Your task to perform on an android device: turn notification dots on Image 0: 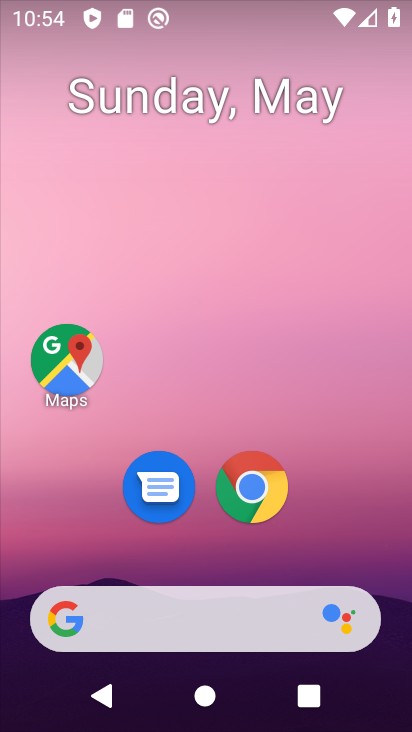
Step 0: drag from (233, 554) to (40, 8)
Your task to perform on an android device: turn notification dots on Image 1: 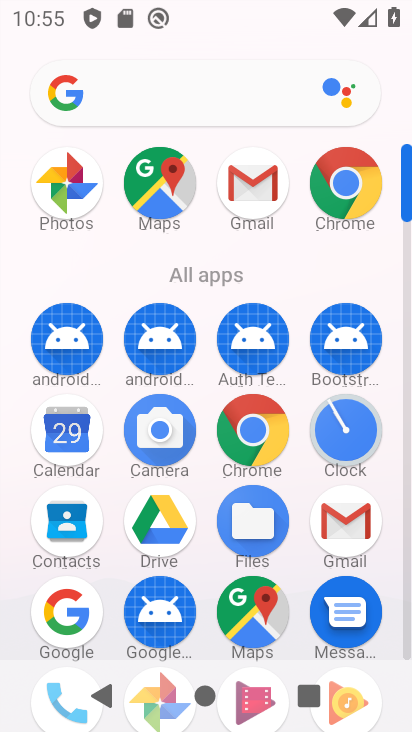
Step 1: drag from (295, 558) to (255, 136)
Your task to perform on an android device: turn notification dots on Image 2: 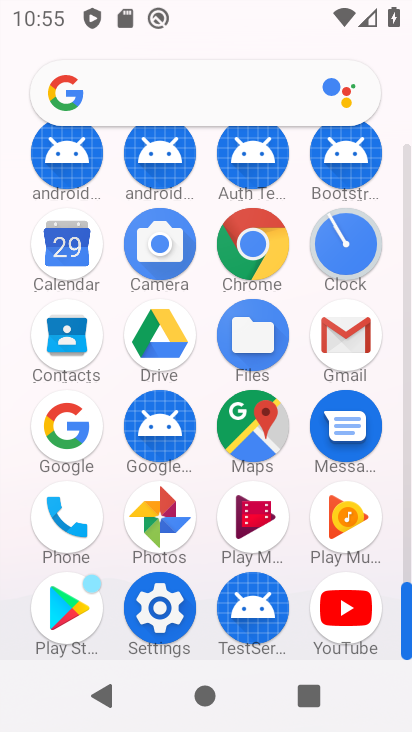
Step 2: click (150, 599)
Your task to perform on an android device: turn notification dots on Image 3: 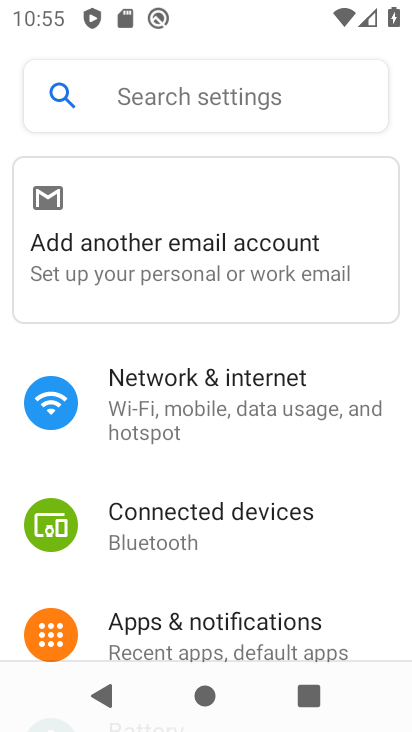
Step 3: click (214, 631)
Your task to perform on an android device: turn notification dots on Image 4: 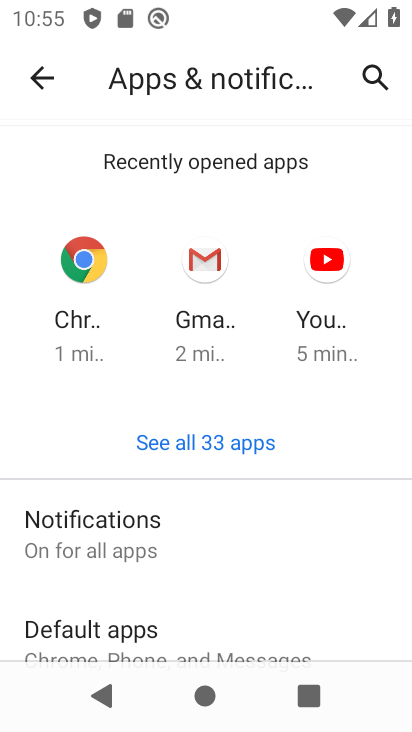
Step 4: click (111, 549)
Your task to perform on an android device: turn notification dots on Image 5: 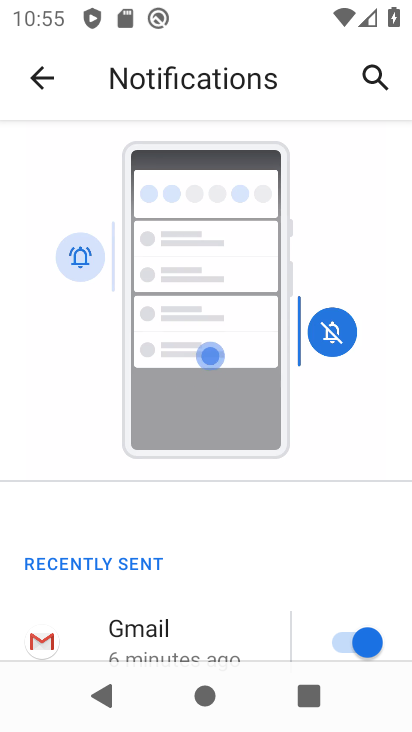
Step 5: drag from (196, 616) to (155, 117)
Your task to perform on an android device: turn notification dots on Image 6: 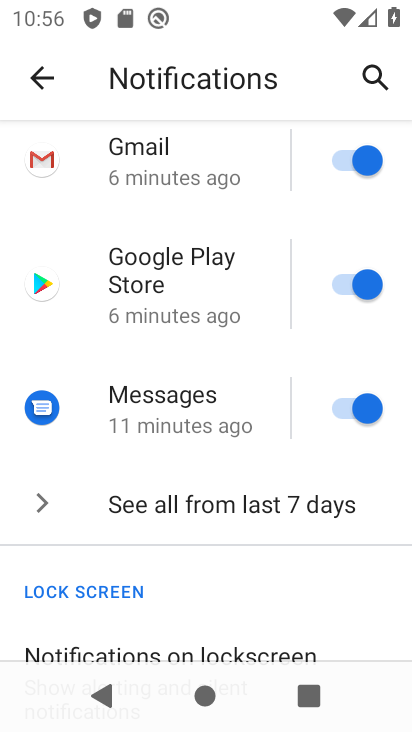
Step 6: drag from (234, 595) to (188, 13)
Your task to perform on an android device: turn notification dots on Image 7: 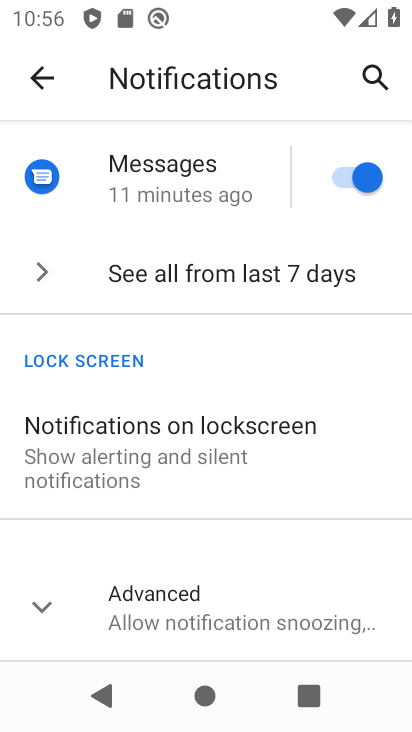
Step 7: click (160, 600)
Your task to perform on an android device: turn notification dots on Image 8: 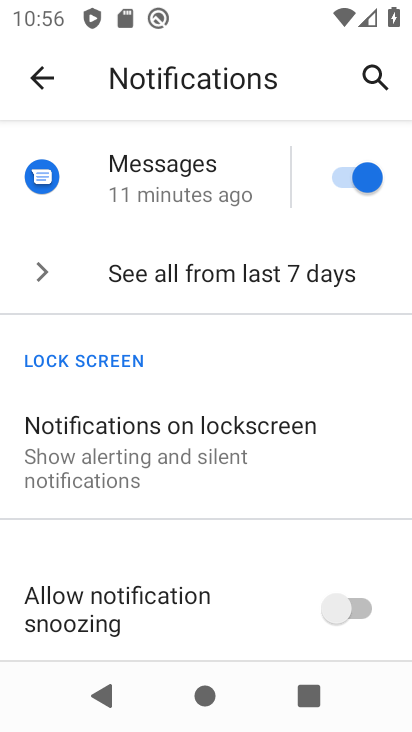
Step 8: task complete